Your task to perform on an android device: Go to Amazon Image 0: 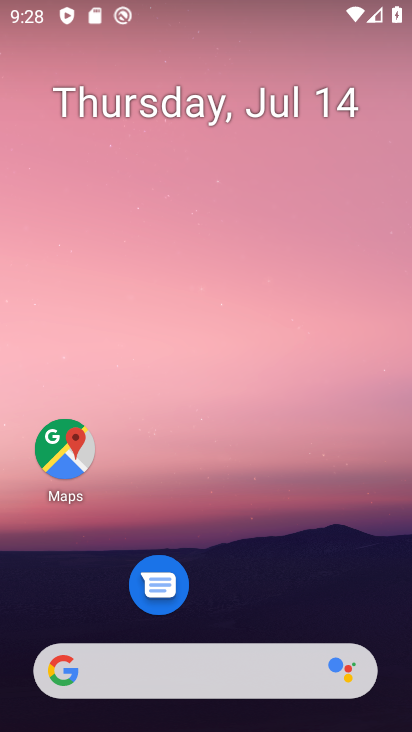
Step 0: drag from (194, 627) to (126, 24)
Your task to perform on an android device: Go to Amazon Image 1: 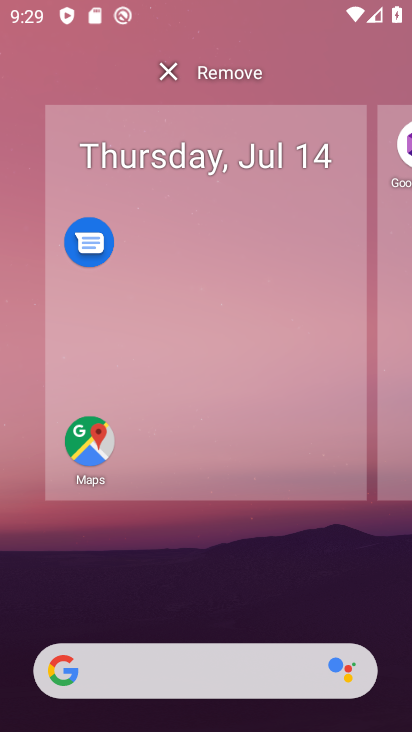
Step 1: click (179, 492)
Your task to perform on an android device: Go to Amazon Image 2: 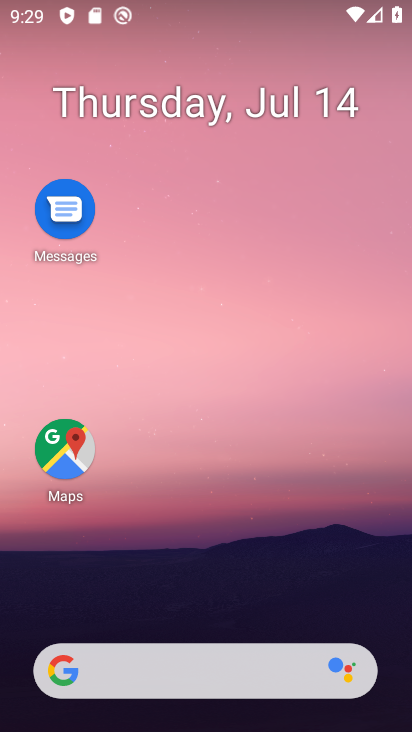
Step 2: drag from (216, 609) to (281, 19)
Your task to perform on an android device: Go to Amazon Image 3: 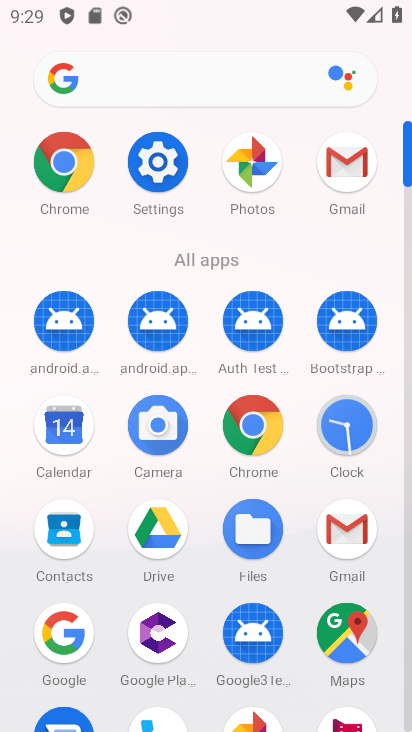
Step 3: click (45, 195)
Your task to perform on an android device: Go to Amazon Image 4: 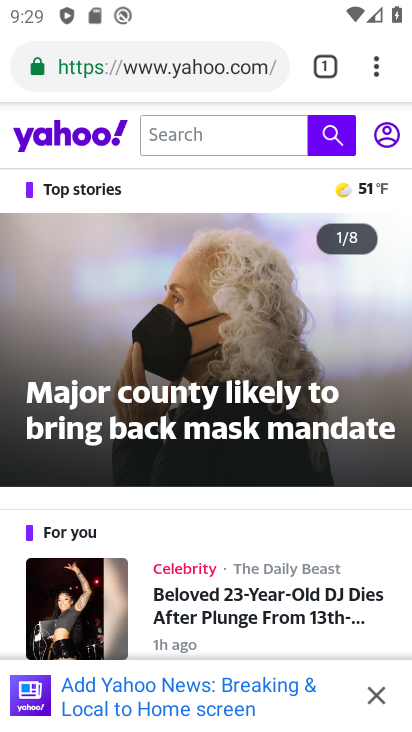
Step 4: click (324, 51)
Your task to perform on an android device: Go to Amazon Image 5: 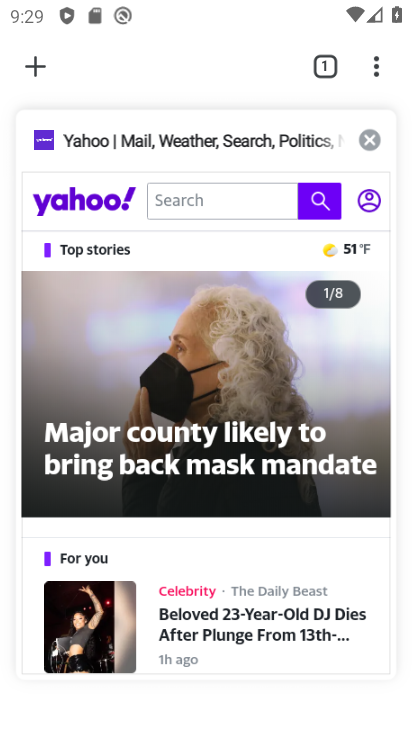
Step 5: click (35, 71)
Your task to perform on an android device: Go to Amazon Image 6: 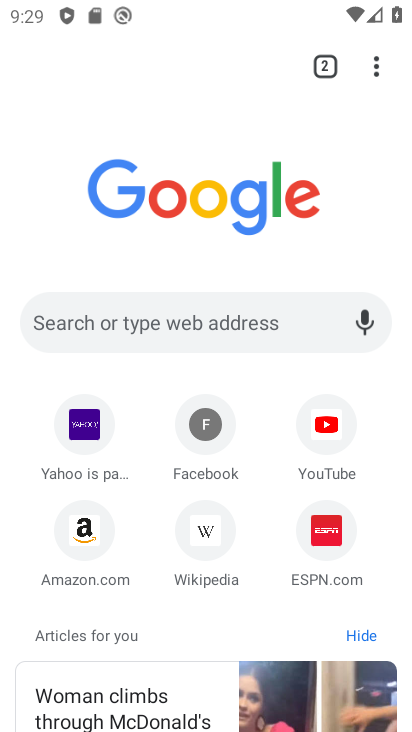
Step 6: click (100, 519)
Your task to perform on an android device: Go to Amazon Image 7: 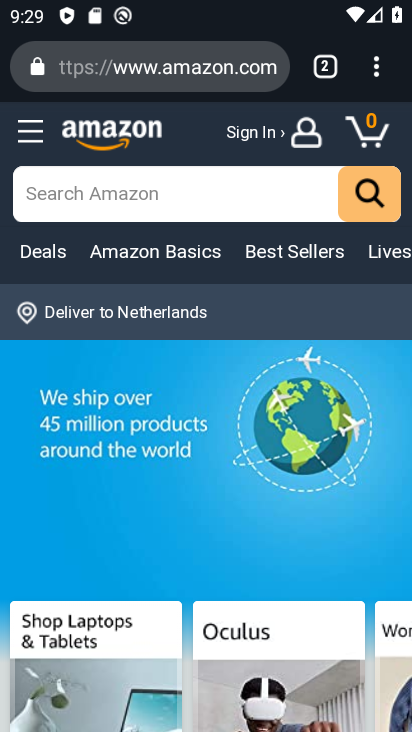
Step 7: task complete